Your task to perform on an android device: toggle wifi Image 0: 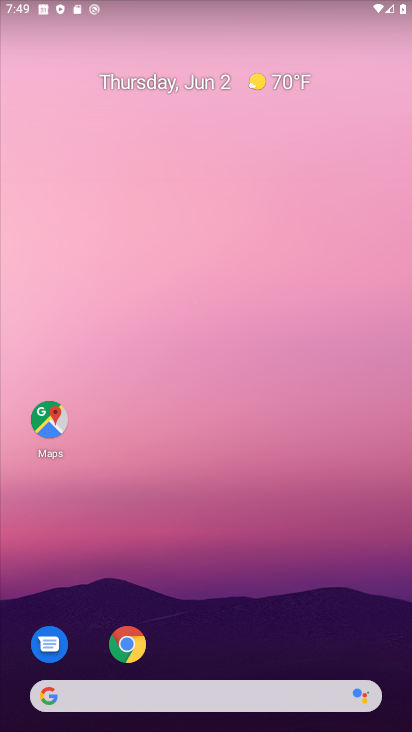
Step 0: drag from (253, 595) to (187, 19)
Your task to perform on an android device: toggle wifi Image 1: 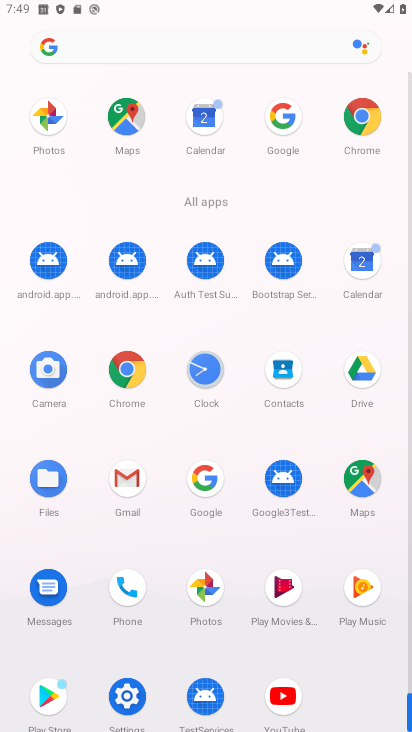
Step 1: click (122, 691)
Your task to perform on an android device: toggle wifi Image 2: 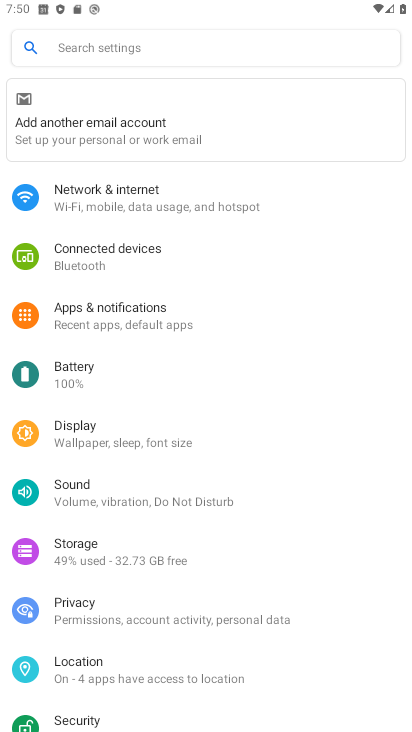
Step 2: click (110, 195)
Your task to perform on an android device: toggle wifi Image 3: 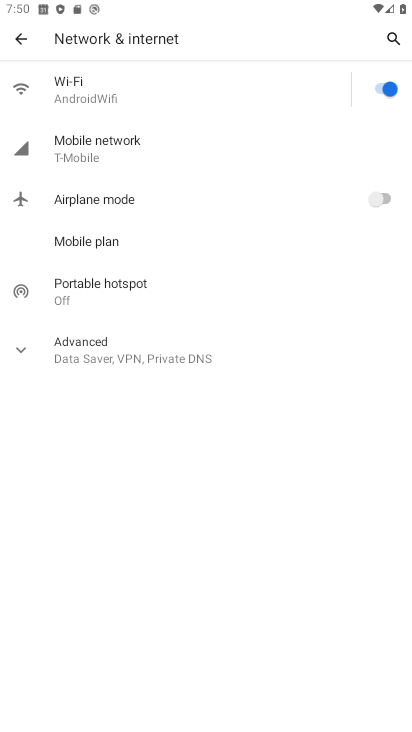
Step 3: click (382, 82)
Your task to perform on an android device: toggle wifi Image 4: 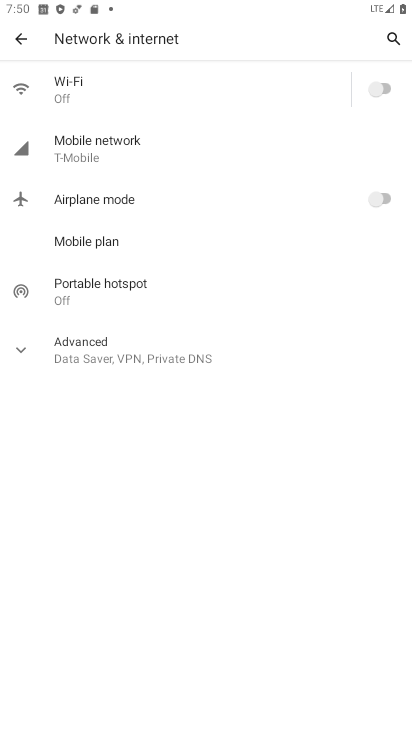
Step 4: task complete